Your task to perform on an android device: star an email in the gmail app Image 0: 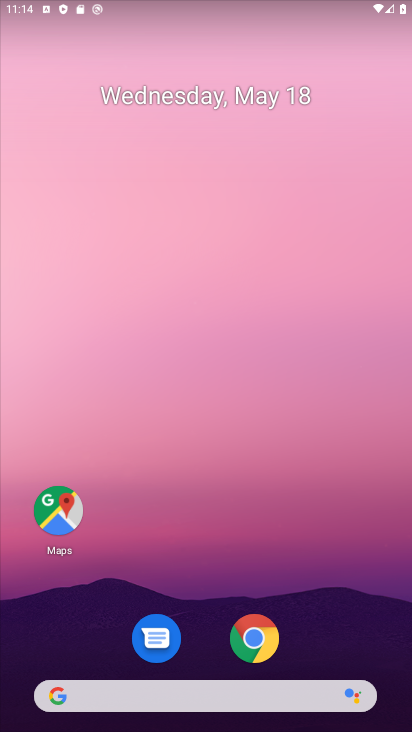
Step 0: drag from (350, 631) to (274, 63)
Your task to perform on an android device: star an email in the gmail app Image 1: 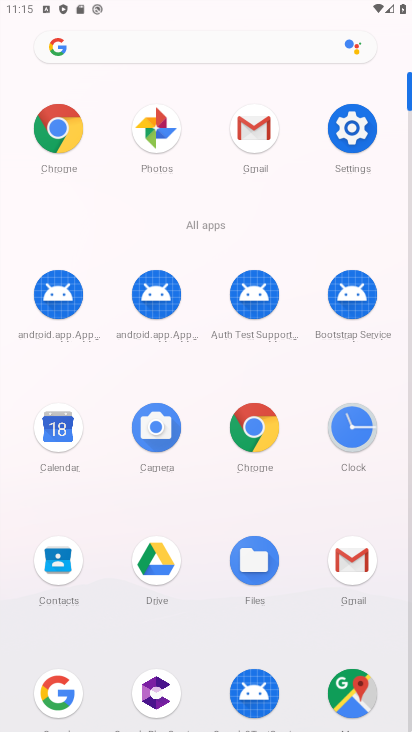
Step 1: click (255, 152)
Your task to perform on an android device: star an email in the gmail app Image 2: 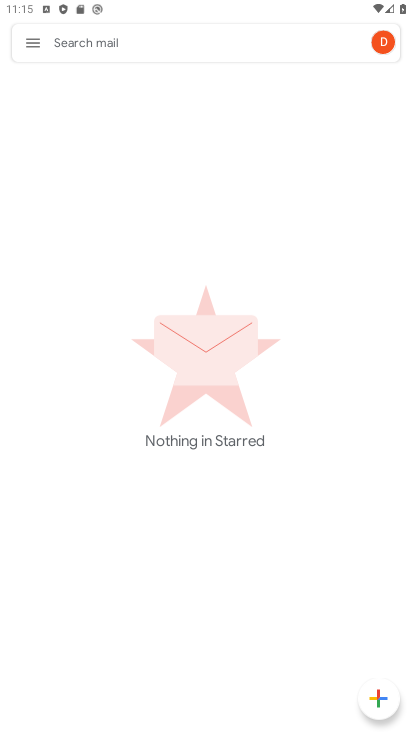
Step 2: click (33, 38)
Your task to perform on an android device: star an email in the gmail app Image 3: 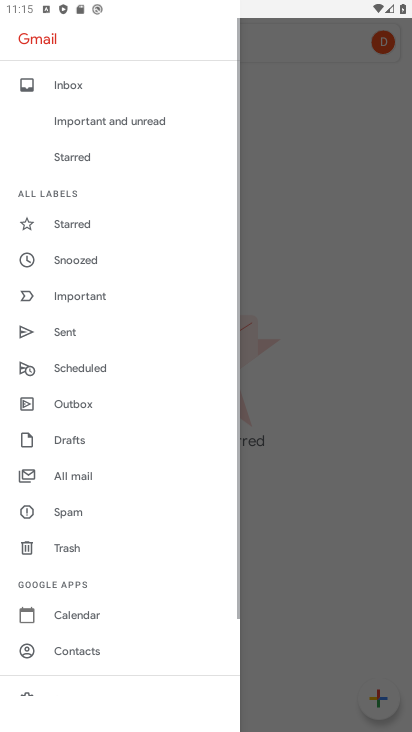
Step 3: click (89, 84)
Your task to perform on an android device: star an email in the gmail app Image 4: 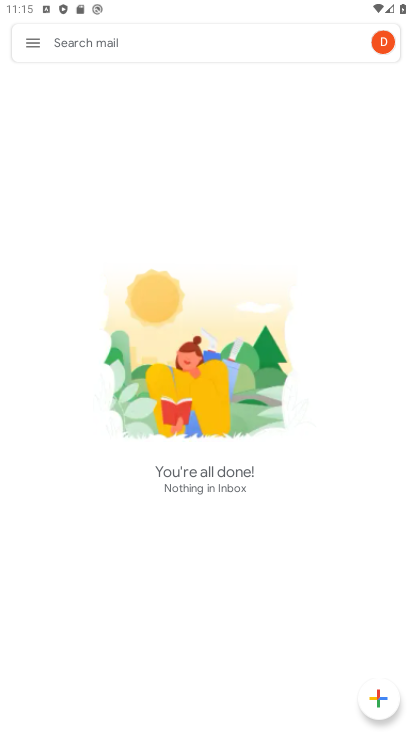
Step 4: task complete